Your task to perform on an android device: turn notification dots off Image 0: 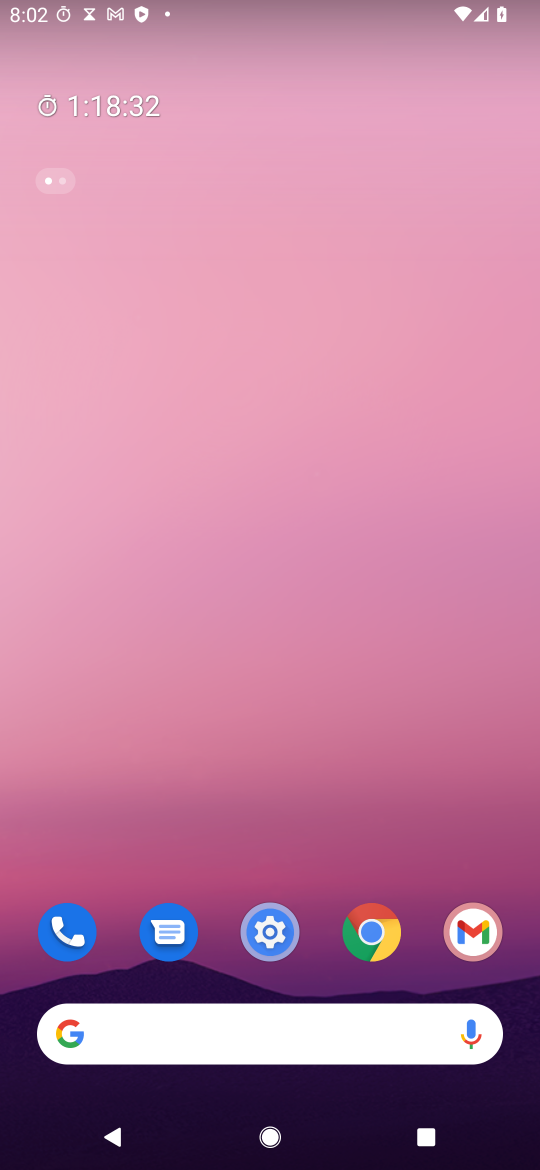
Step 0: drag from (423, 945) to (395, 148)
Your task to perform on an android device: turn notification dots off Image 1: 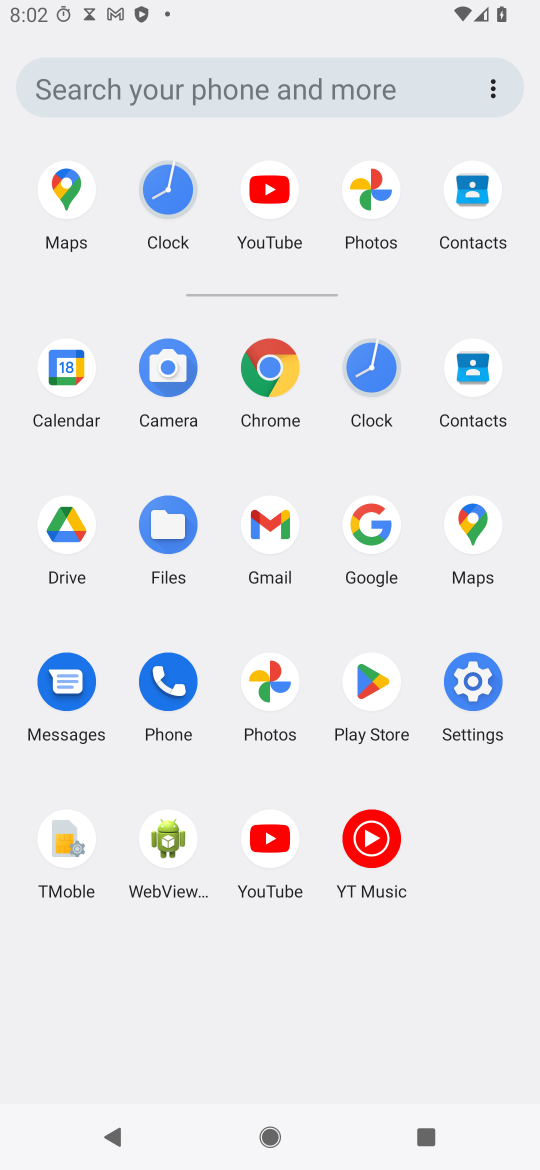
Step 1: click (482, 691)
Your task to perform on an android device: turn notification dots off Image 2: 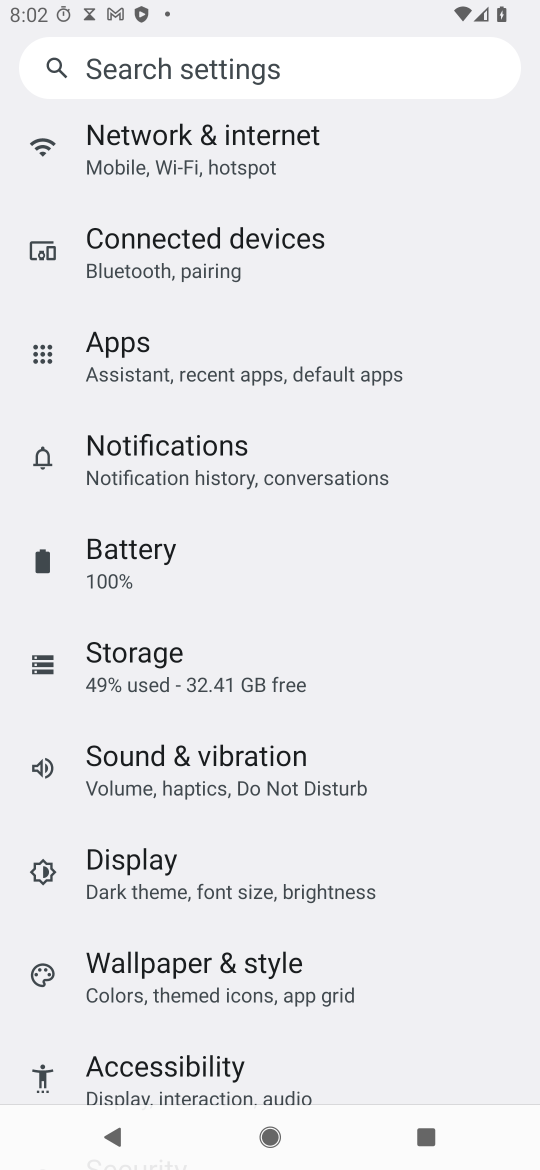
Step 2: click (255, 468)
Your task to perform on an android device: turn notification dots off Image 3: 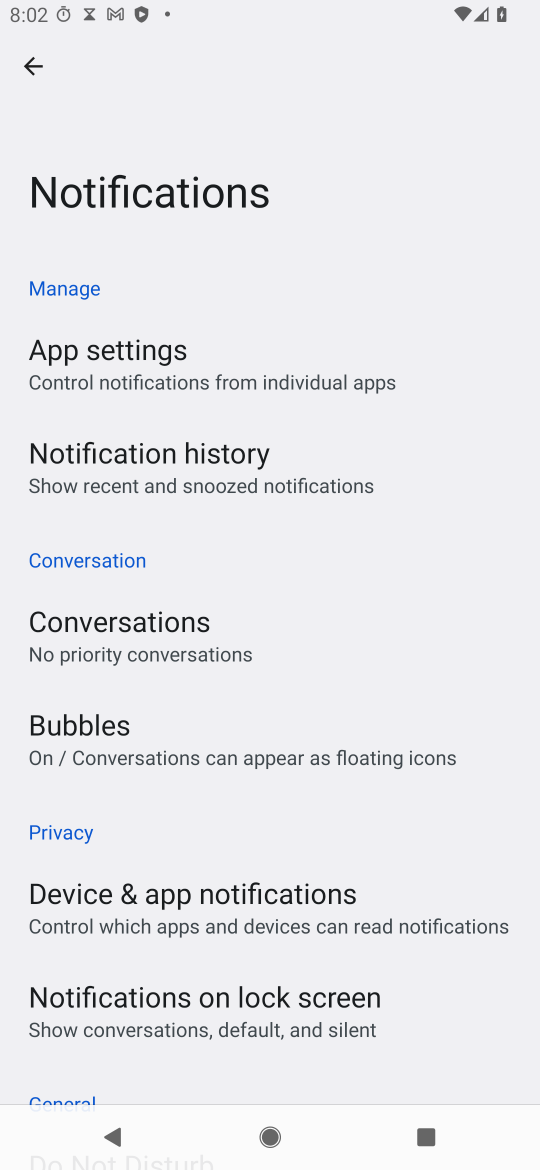
Step 3: task complete